Your task to perform on an android device: Open battery settings Image 0: 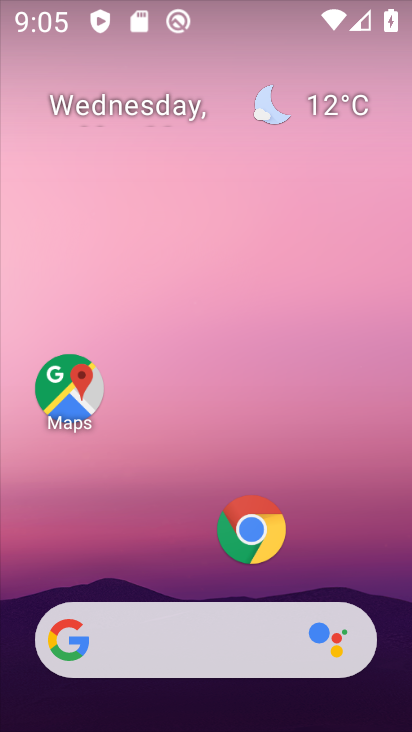
Step 0: drag from (190, 426) to (196, 164)
Your task to perform on an android device: Open battery settings Image 1: 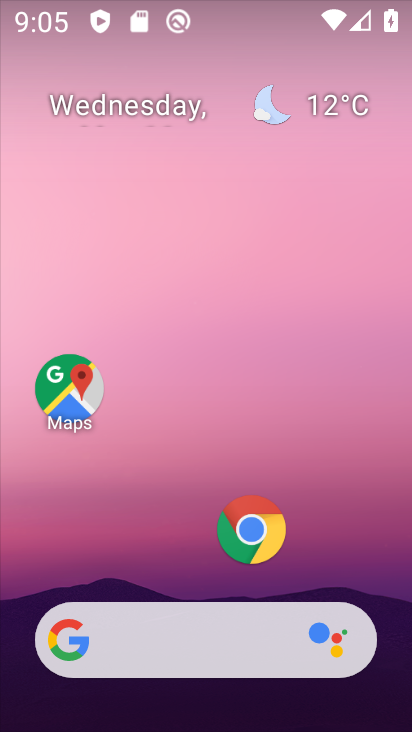
Step 1: drag from (254, 602) to (338, 35)
Your task to perform on an android device: Open battery settings Image 2: 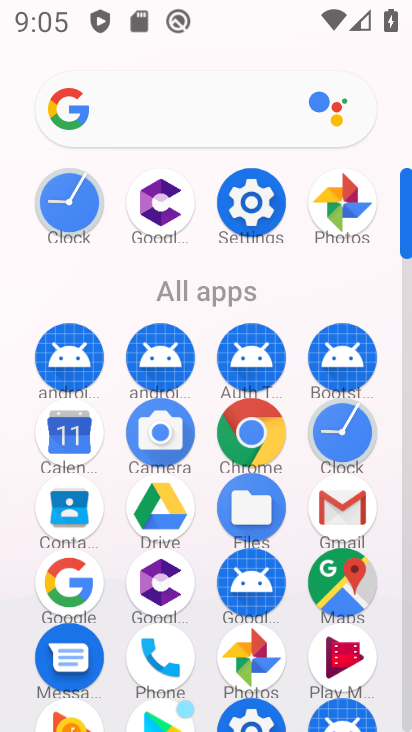
Step 2: click (257, 222)
Your task to perform on an android device: Open battery settings Image 3: 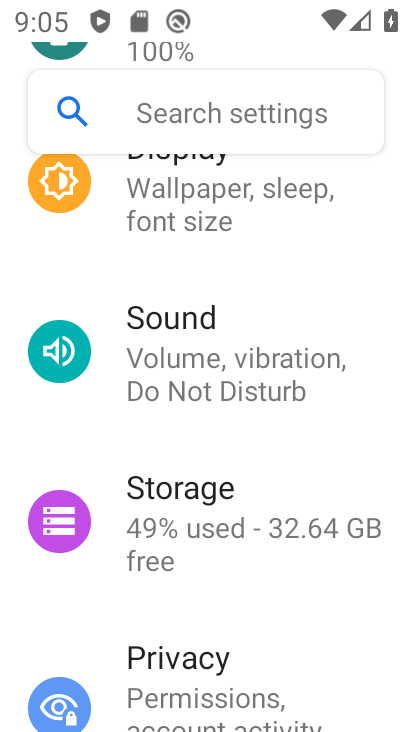
Step 3: drag from (249, 597) to (288, 283)
Your task to perform on an android device: Open battery settings Image 4: 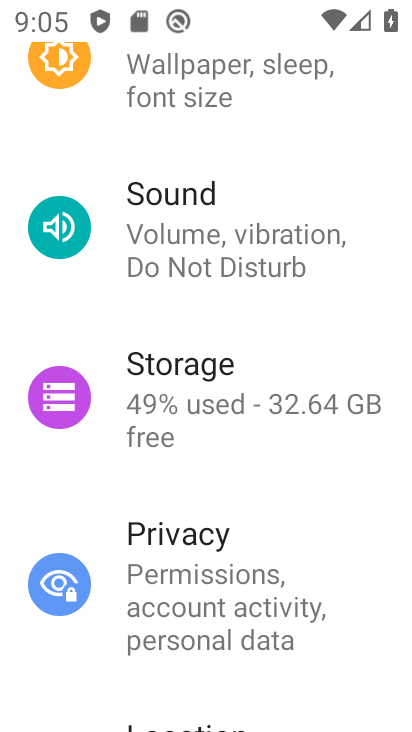
Step 4: drag from (266, 134) to (318, 657)
Your task to perform on an android device: Open battery settings Image 5: 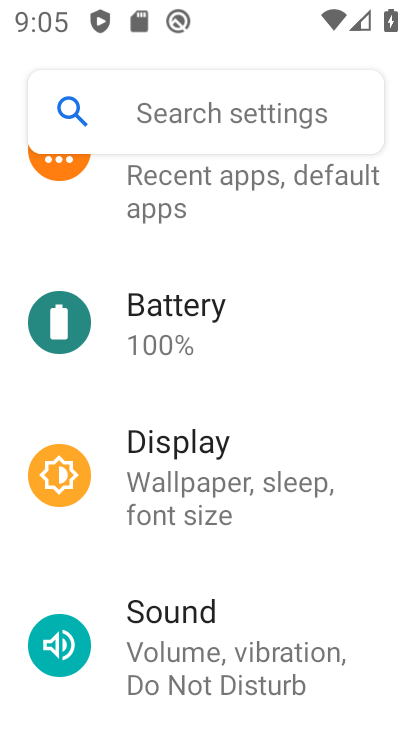
Step 5: click (209, 329)
Your task to perform on an android device: Open battery settings Image 6: 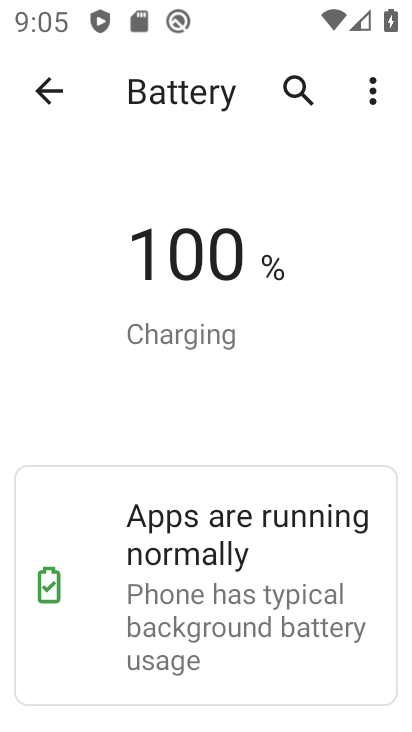
Step 6: task complete